Your task to perform on an android device: see sites visited before in the chrome app Image 0: 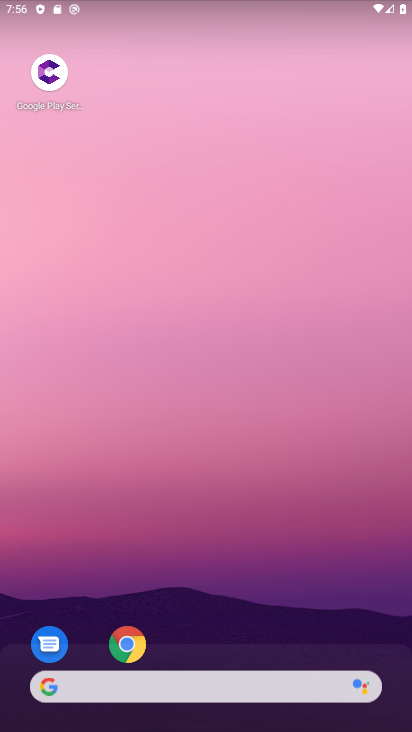
Step 0: click (131, 654)
Your task to perform on an android device: see sites visited before in the chrome app Image 1: 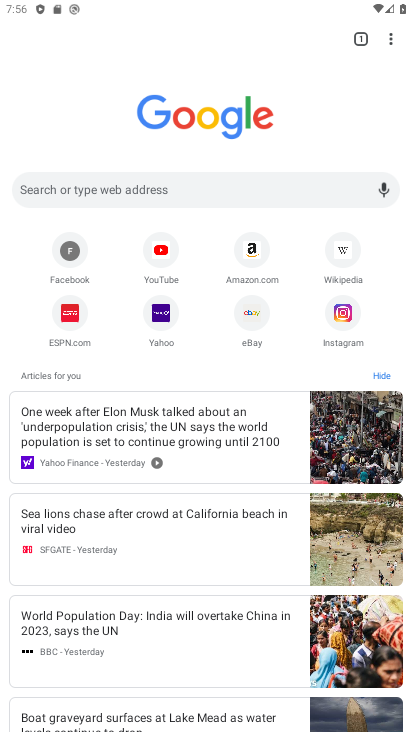
Step 1: click (394, 38)
Your task to perform on an android device: see sites visited before in the chrome app Image 2: 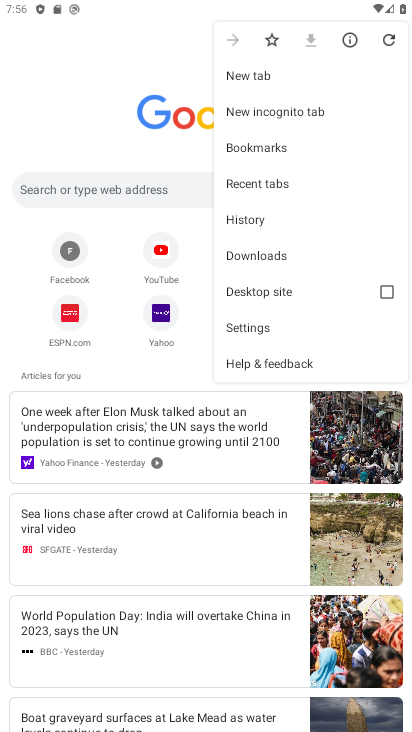
Step 2: click (251, 322)
Your task to perform on an android device: see sites visited before in the chrome app Image 3: 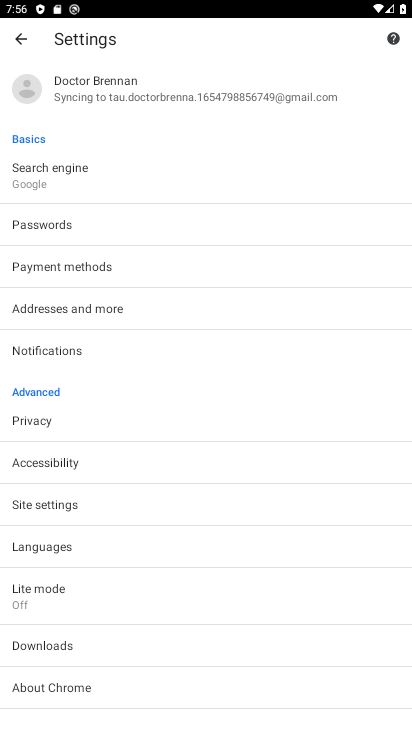
Step 3: click (60, 499)
Your task to perform on an android device: see sites visited before in the chrome app Image 4: 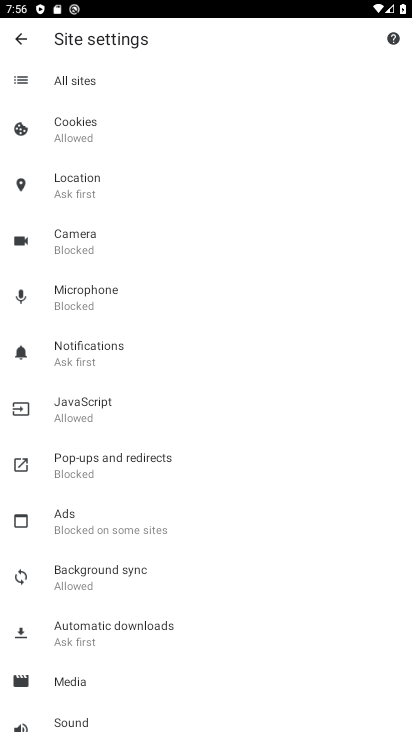
Step 4: task complete